Your task to perform on an android device: See recent photos Image 0: 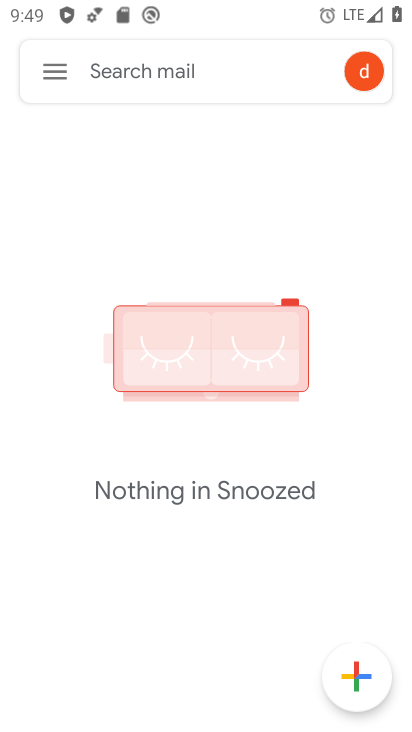
Step 0: press home button
Your task to perform on an android device: See recent photos Image 1: 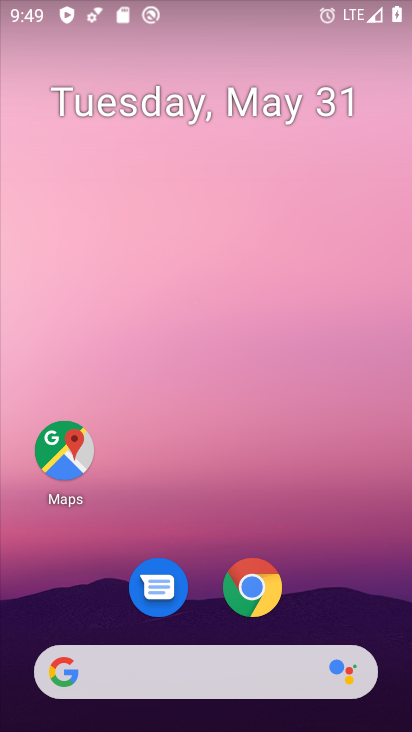
Step 1: drag from (373, 615) to (366, 229)
Your task to perform on an android device: See recent photos Image 2: 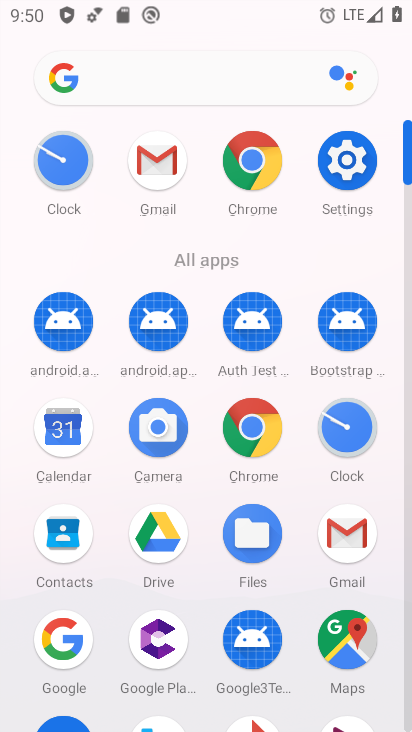
Step 2: drag from (301, 589) to (300, 355)
Your task to perform on an android device: See recent photos Image 3: 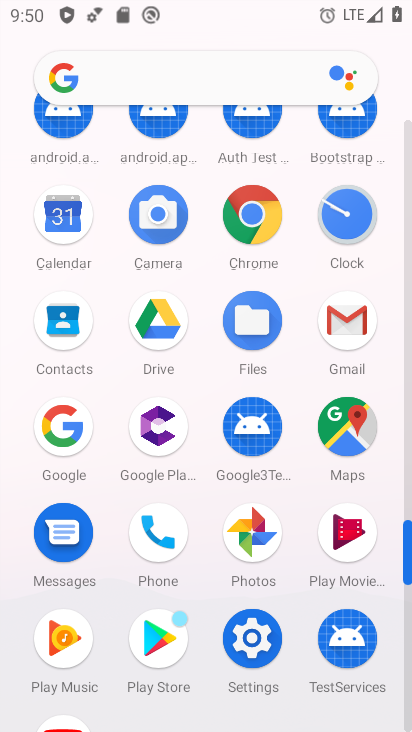
Step 3: click (249, 543)
Your task to perform on an android device: See recent photos Image 4: 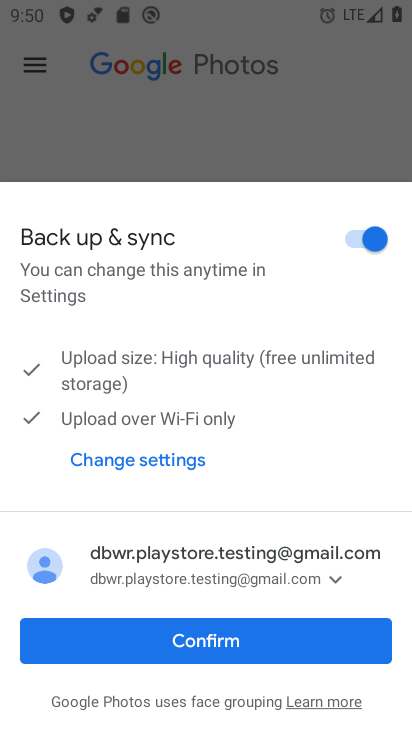
Step 4: click (212, 645)
Your task to perform on an android device: See recent photos Image 5: 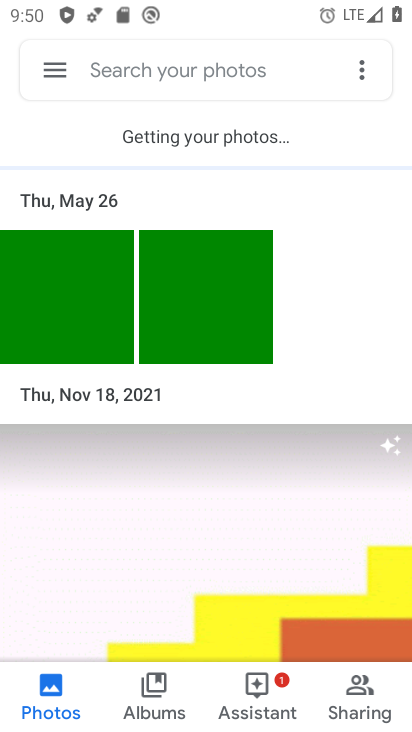
Step 5: click (91, 283)
Your task to perform on an android device: See recent photos Image 6: 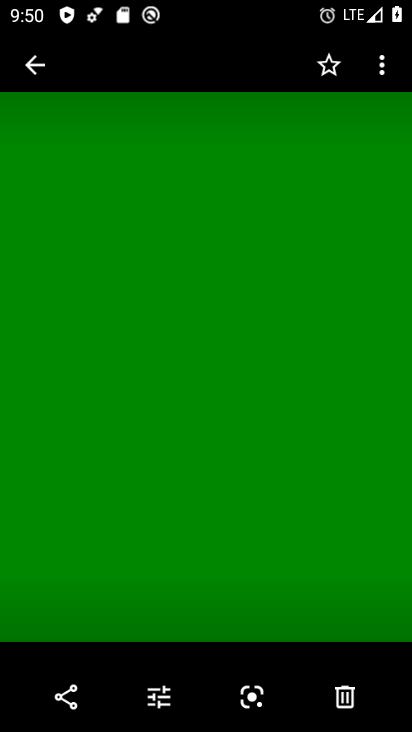
Step 6: task complete